Your task to perform on an android device: Go to calendar. Show me events next week Image 0: 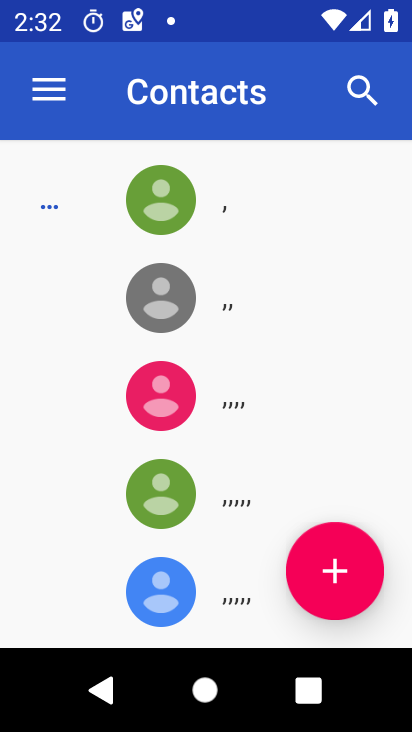
Step 0: press back button
Your task to perform on an android device: Go to calendar. Show me events next week Image 1: 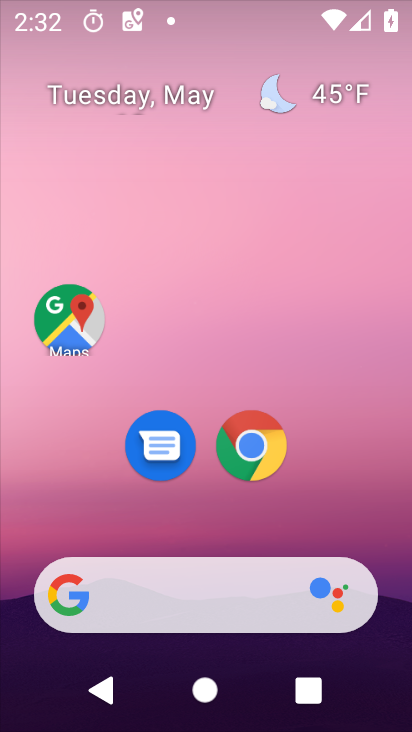
Step 1: drag from (245, 512) to (310, 20)
Your task to perform on an android device: Go to calendar. Show me events next week Image 2: 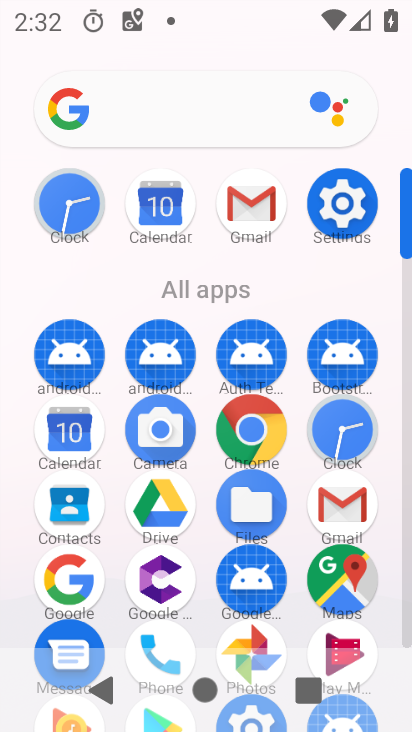
Step 2: click (156, 210)
Your task to perform on an android device: Go to calendar. Show me events next week Image 3: 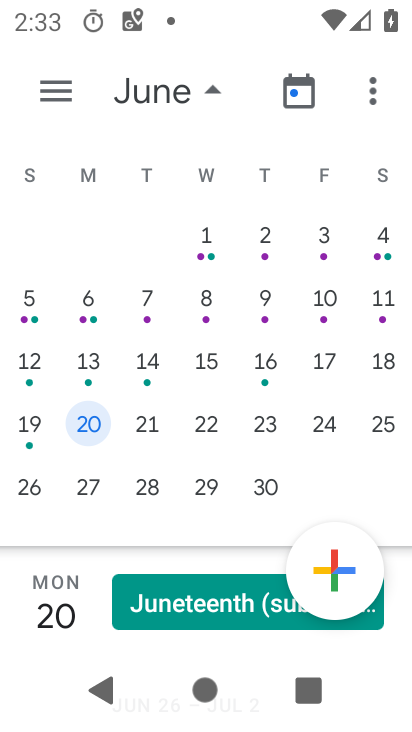
Step 3: click (200, 77)
Your task to perform on an android device: Go to calendar. Show me events next week Image 4: 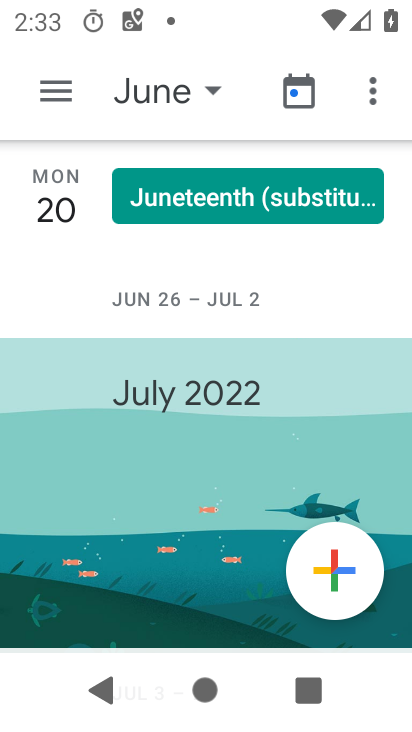
Step 4: click (205, 90)
Your task to perform on an android device: Go to calendar. Show me events next week Image 5: 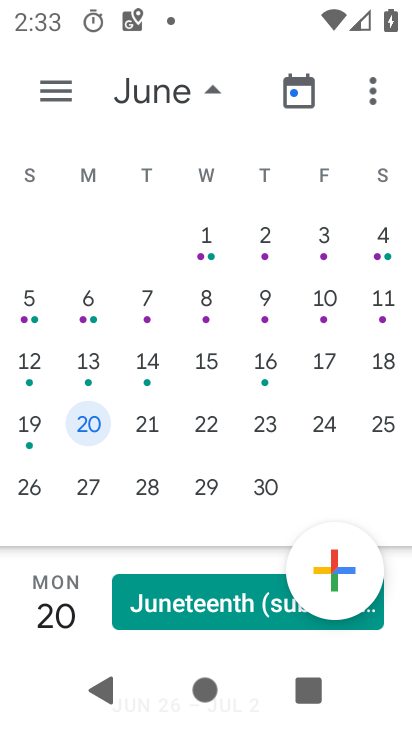
Step 5: drag from (45, 385) to (374, 360)
Your task to perform on an android device: Go to calendar. Show me events next week Image 6: 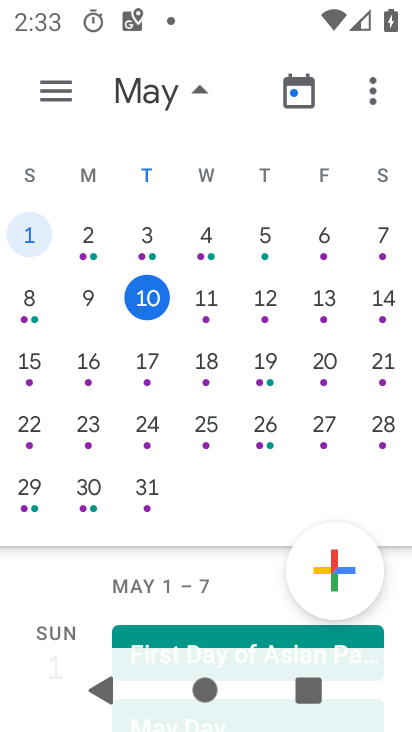
Step 6: click (156, 299)
Your task to perform on an android device: Go to calendar. Show me events next week Image 7: 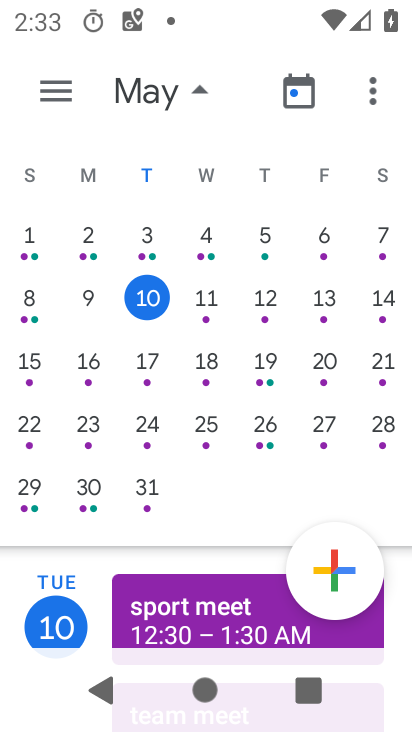
Step 7: click (94, 363)
Your task to perform on an android device: Go to calendar. Show me events next week Image 8: 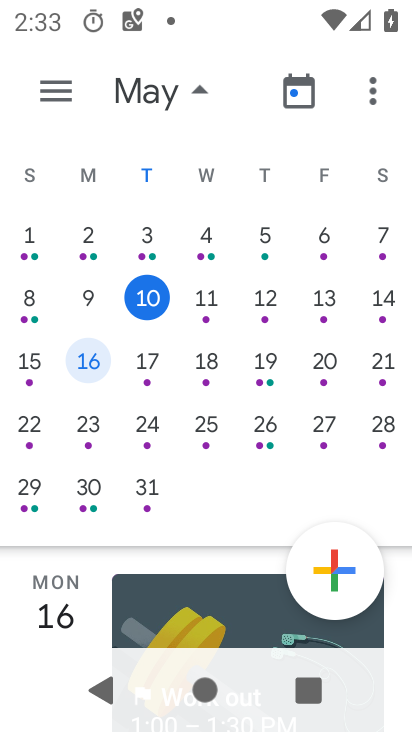
Step 8: drag from (191, 570) to (320, 163)
Your task to perform on an android device: Go to calendar. Show me events next week Image 9: 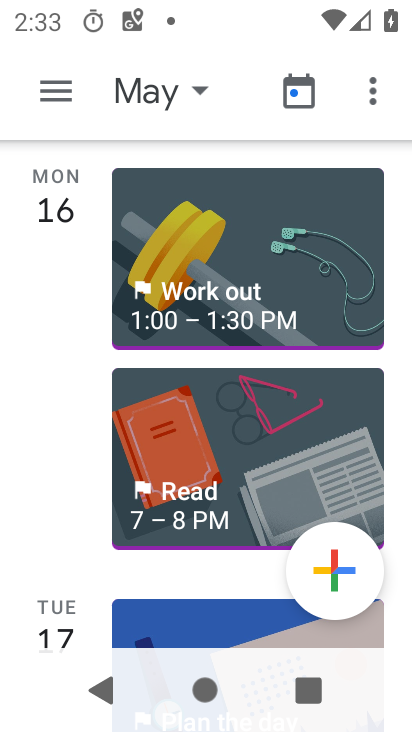
Step 9: drag from (224, 615) to (376, 179)
Your task to perform on an android device: Go to calendar. Show me events next week Image 10: 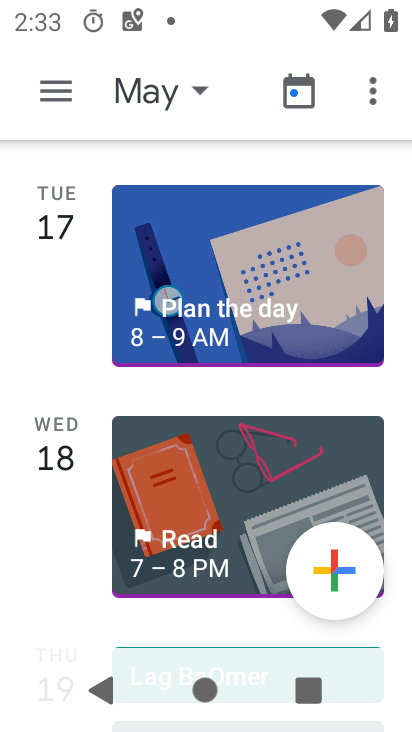
Step 10: drag from (240, 552) to (360, 33)
Your task to perform on an android device: Go to calendar. Show me events next week Image 11: 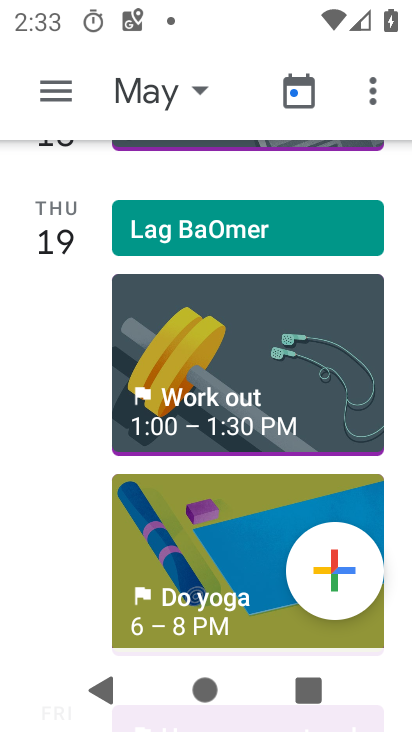
Step 11: click (187, 554)
Your task to perform on an android device: Go to calendar. Show me events next week Image 12: 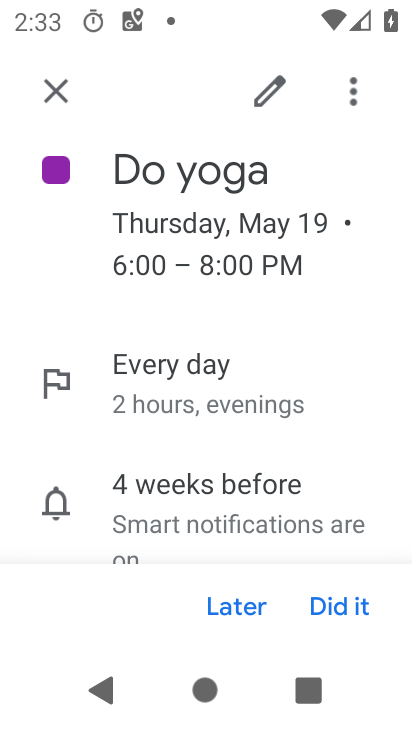
Step 12: task complete